Your task to perform on an android device: see creations saved in the google photos Image 0: 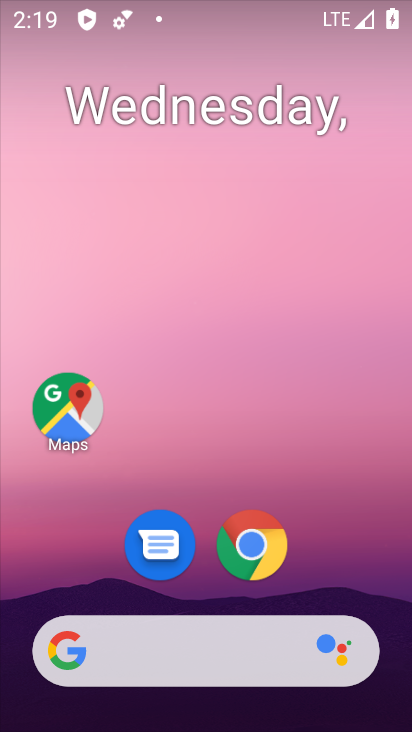
Step 0: drag from (220, 565) to (236, 189)
Your task to perform on an android device: see creations saved in the google photos Image 1: 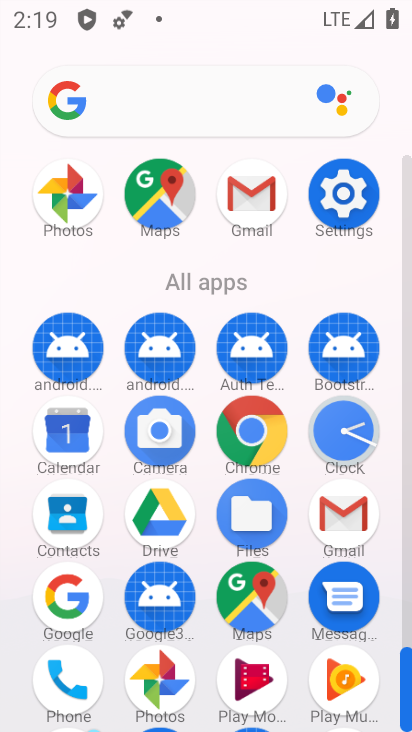
Step 1: click (159, 683)
Your task to perform on an android device: see creations saved in the google photos Image 2: 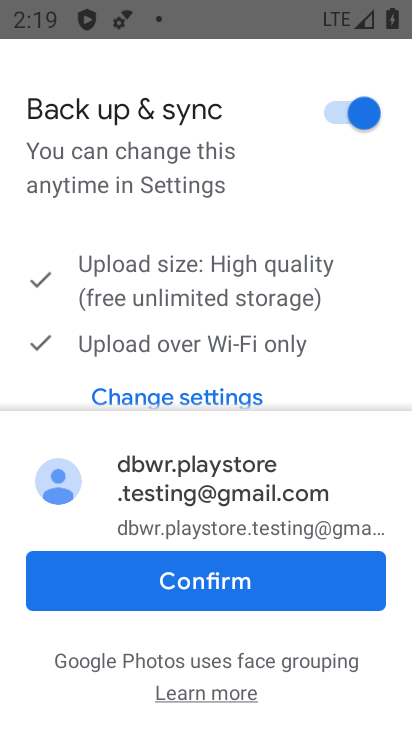
Step 2: click (198, 581)
Your task to perform on an android device: see creations saved in the google photos Image 3: 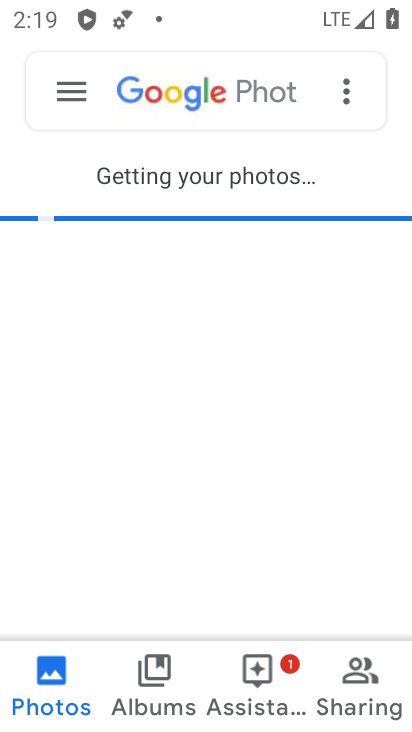
Step 3: click (188, 88)
Your task to perform on an android device: see creations saved in the google photos Image 4: 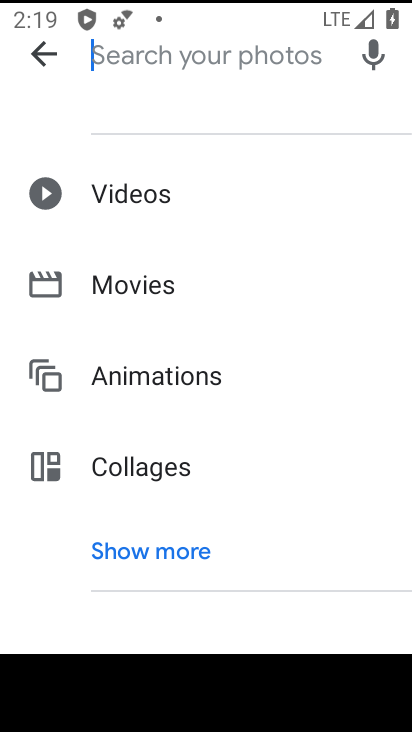
Step 4: click (155, 552)
Your task to perform on an android device: see creations saved in the google photos Image 5: 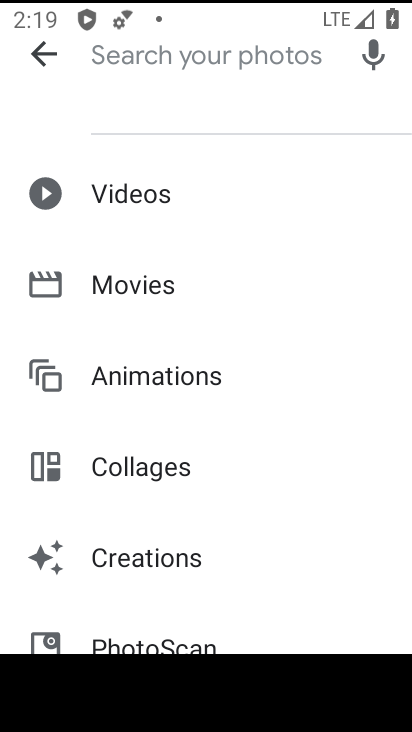
Step 5: click (155, 552)
Your task to perform on an android device: see creations saved in the google photos Image 6: 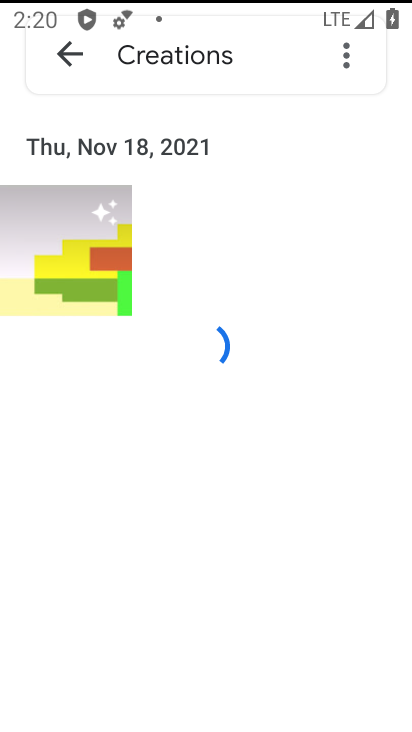
Step 6: task complete